Your task to perform on an android device: Open the calendar app, open the side menu, and click the "Day" option Image 0: 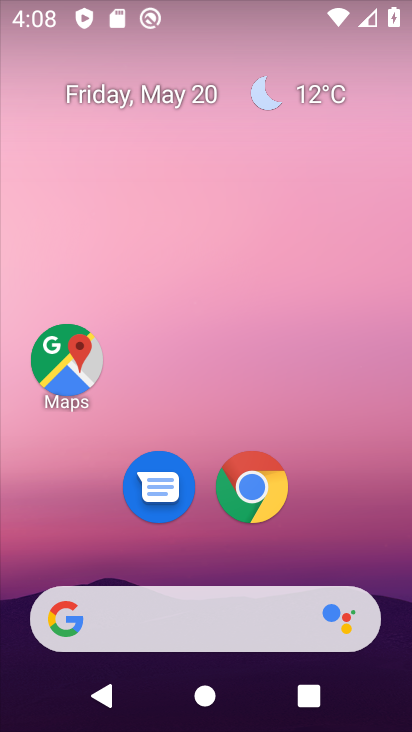
Step 0: drag from (325, 504) to (231, 97)
Your task to perform on an android device: Open the calendar app, open the side menu, and click the "Day" option Image 1: 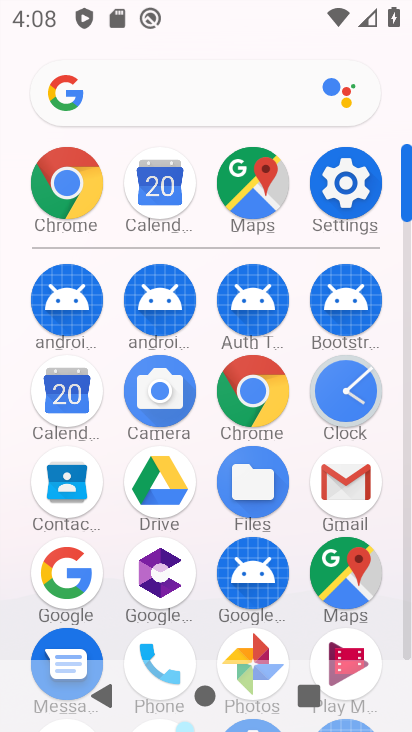
Step 1: click (67, 425)
Your task to perform on an android device: Open the calendar app, open the side menu, and click the "Day" option Image 2: 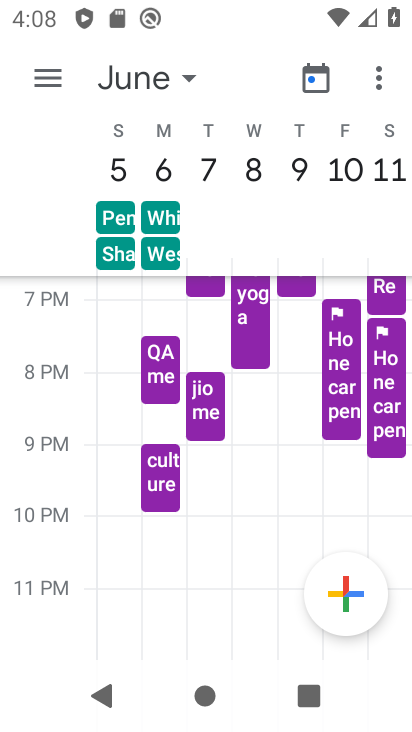
Step 2: click (48, 88)
Your task to perform on an android device: Open the calendar app, open the side menu, and click the "Day" option Image 3: 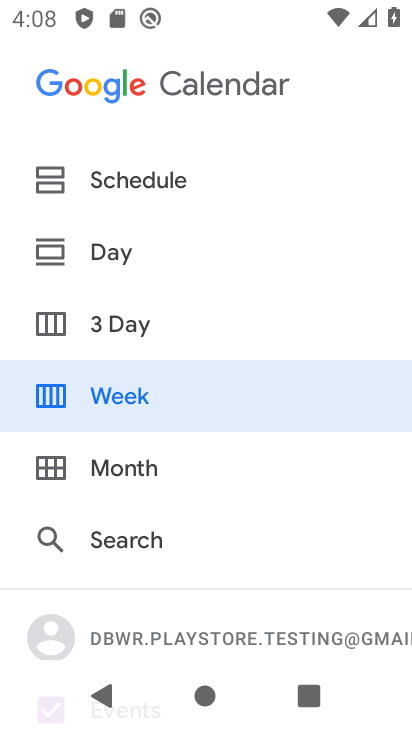
Step 3: click (102, 259)
Your task to perform on an android device: Open the calendar app, open the side menu, and click the "Day" option Image 4: 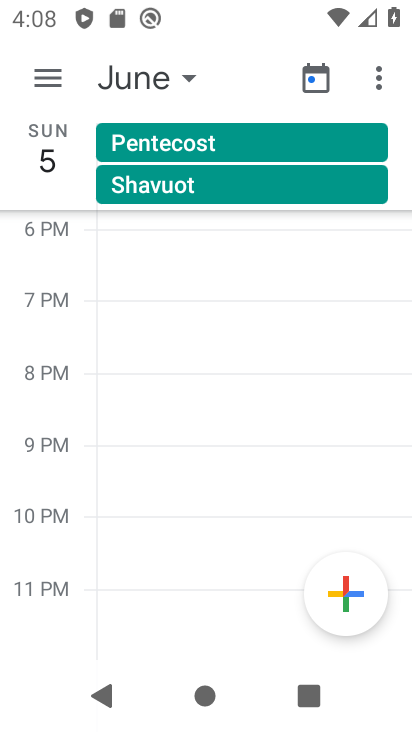
Step 4: task complete